Your task to perform on an android device: change keyboard looks Image 0: 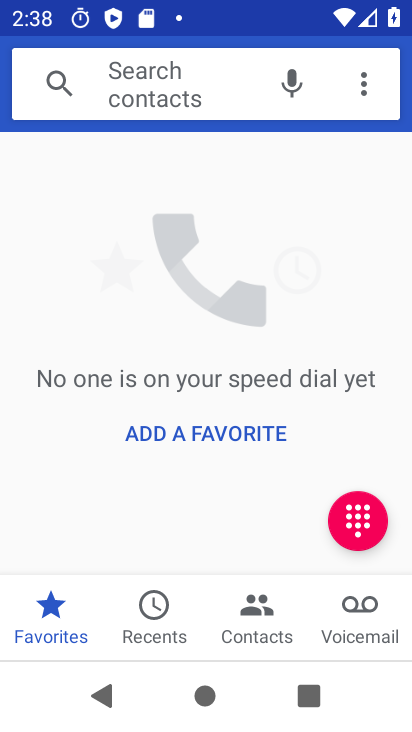
Step 0: press home button
Your task to perform on an android device: change keyboard looks Image 1: 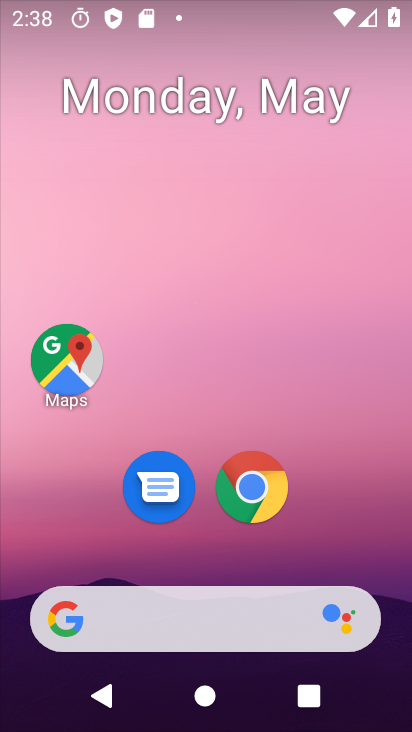
Step 1: drag from (204, 569) to (230, 95)
Your task to perform on an android device: change keyboard looks Image 2: 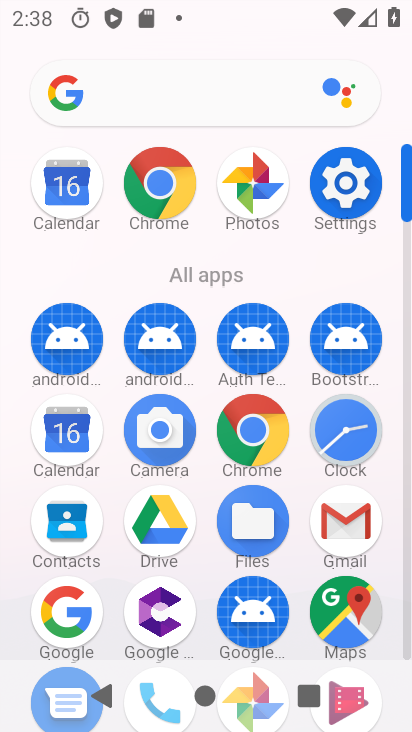
Step 2: click (345, 186)
Your task to perform on an android device: change keyboard looks Image 3: 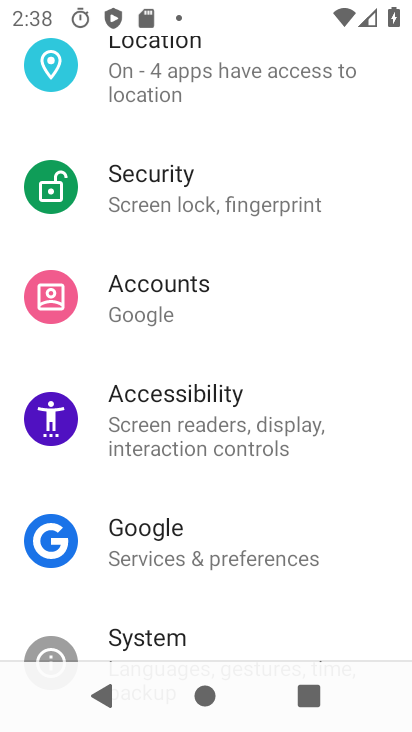
Step 3: drag from (221, 516) to (274, 206)
Your task to perform on an android device: change keyboard looks Image 4: 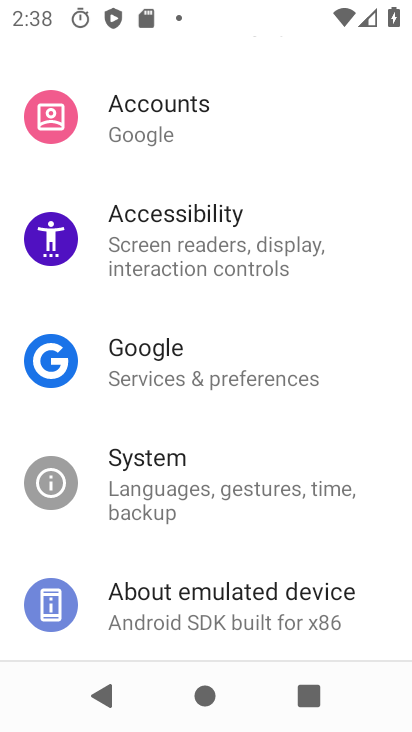
Step 4: click (176, 499)
Your task to perform on an android device: change keyboard looks Image 5: 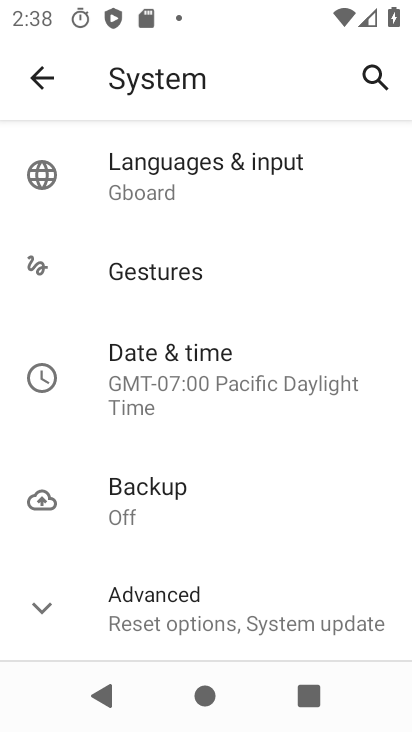
Step 5: drag from (197, 497) to (239, 204)
Your task to perform on an android device: change keyboard looks Image 6: 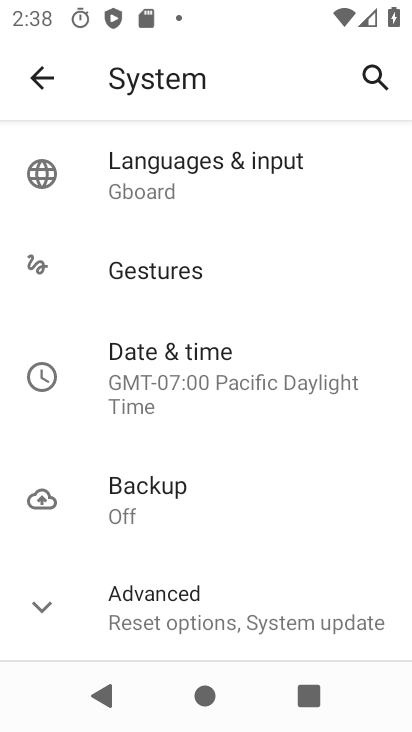
Step 6: click (157, 183)
Your task to perform on an android device: change keyboard looks Image 7: 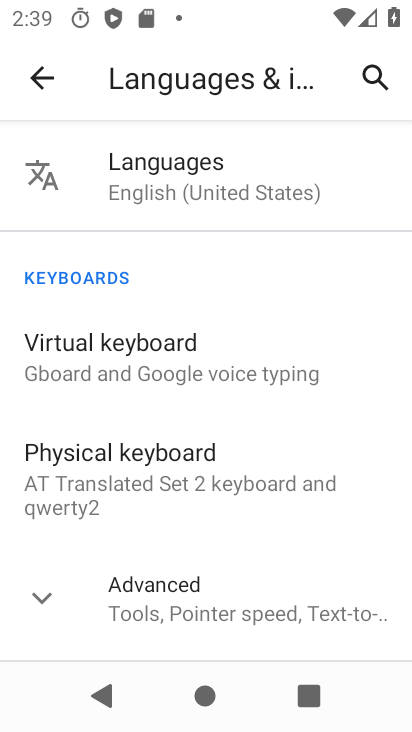
Step 7: click (164, 360)
Your task to perform on an android device: change keyboard looks Image 8: 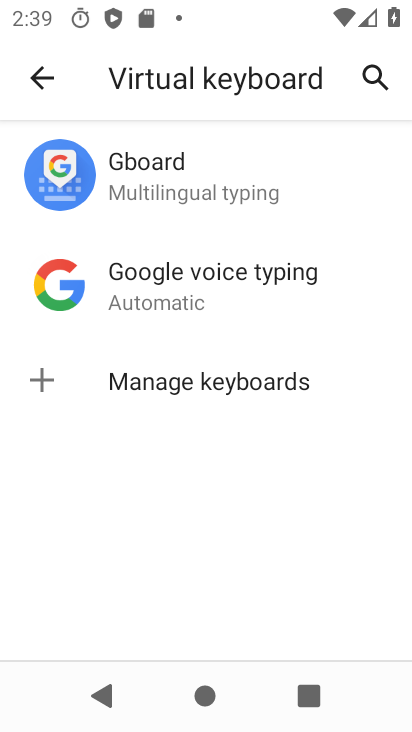
Step 8: click (181, 192)
Your task to perform on an android device: change keyboard looks Image 9: 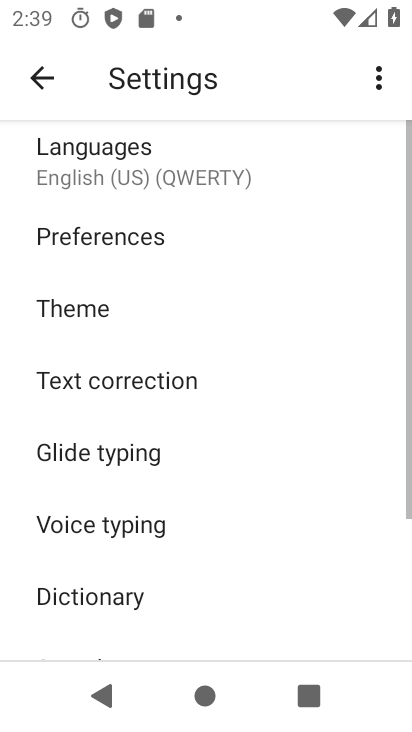
Step 9: click (108, 312)
Your task to perform on an android device: change keyboard looks Image 10: 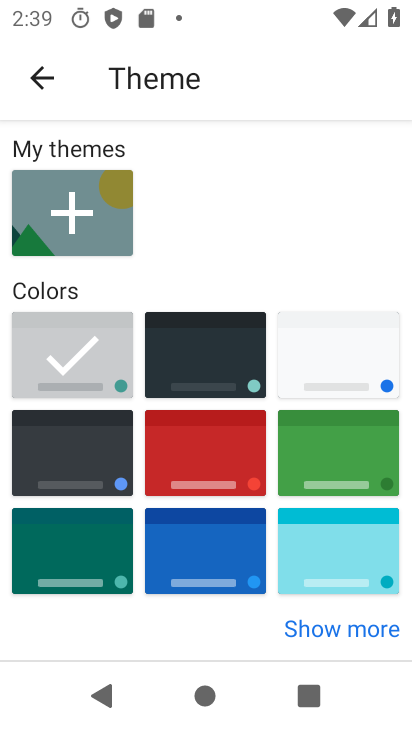
Step 10: click (307, 458)
Your task to perform on an android device: change keyboard looks Image 11: 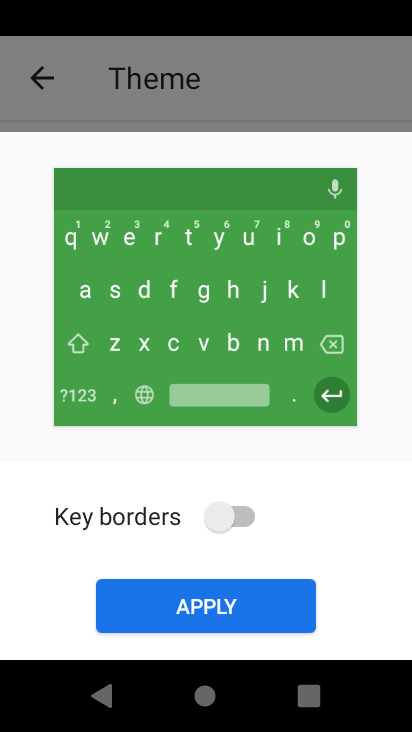
Step 11: click (229, 611)
Your task to perform on an android device: change keyboard looks Image 12: 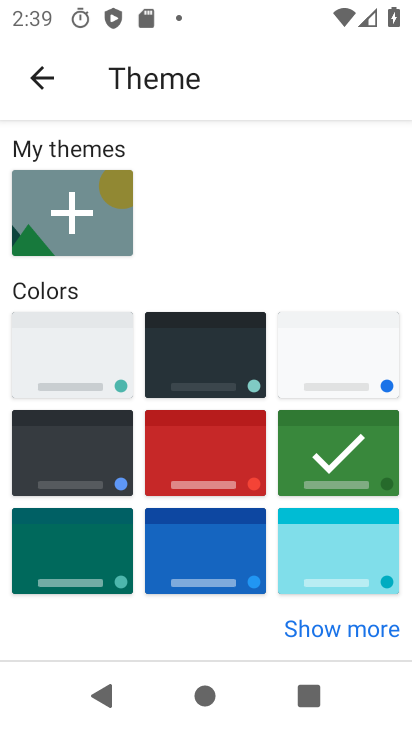
Step 12: task complete